Your task to perform on an android device: Turn off the flashlight Image 0: 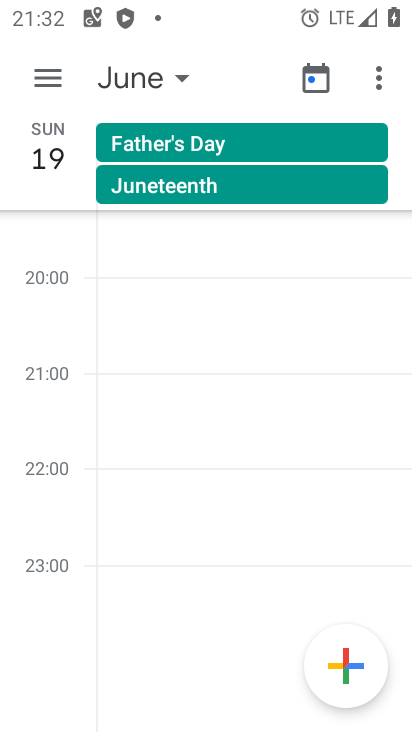
Step 0: press home button
Your task to perform on an android device: Turn off the flashlight Image 1: 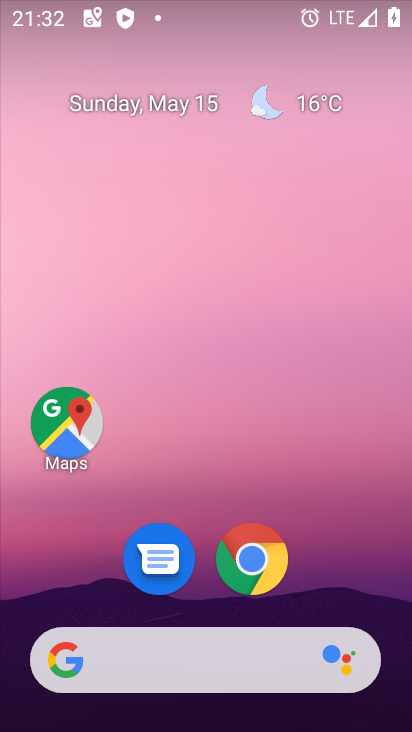
Step 1: drag from (351, 528) to (207, 38)
Your task to perform on an android device: Turn off the flashlight Image 2: 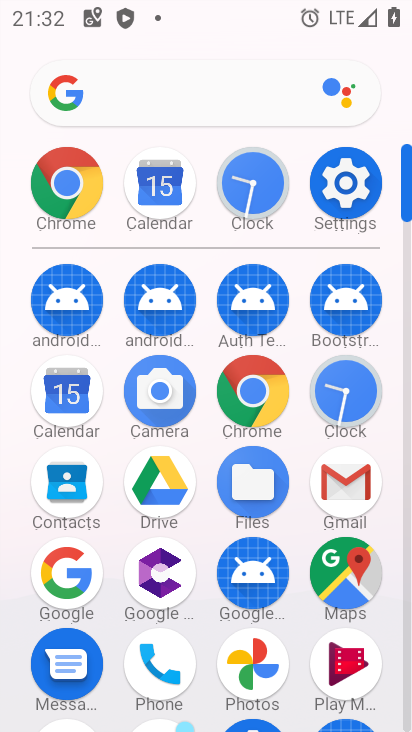
Step 2: click (333, 195)
Your task to perform on an android device: Turn off the flashlight Image 3: 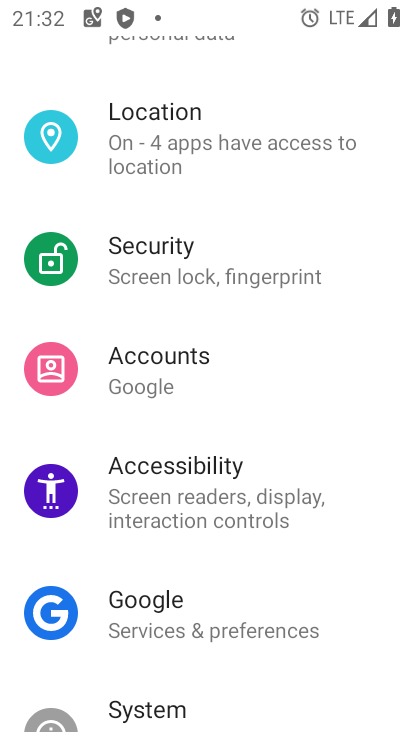
Step 3: click (163, 264)
Your task to perform on an android device: Turn off the flashlight Image 4: 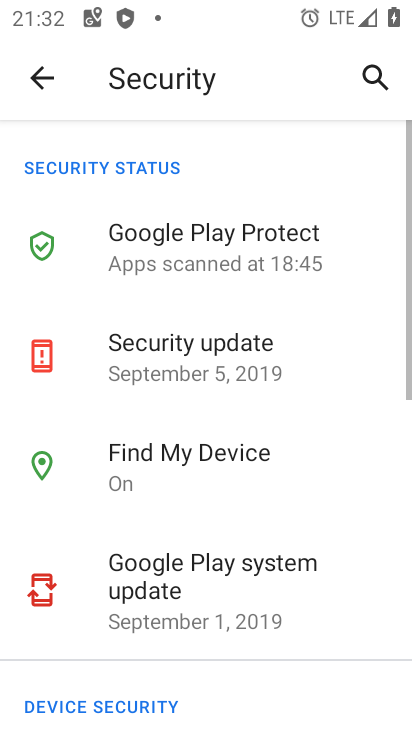
Step 4: task complete